Your task to perform on an android device: change notifications settings Image 0: 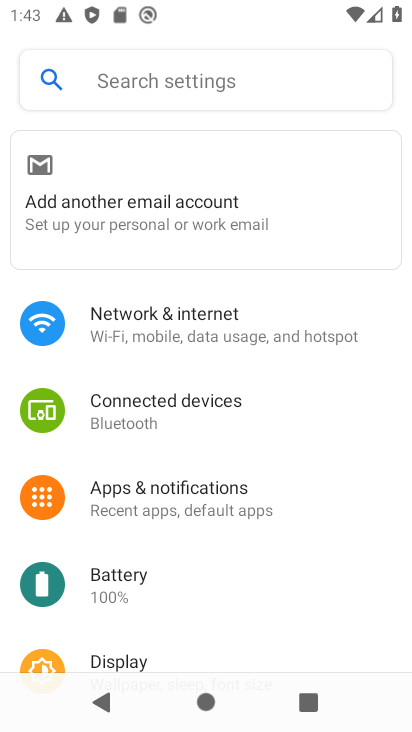
Step 0: click (157, 511)
Your task to perform on an android device: change notifications settings Image 1: 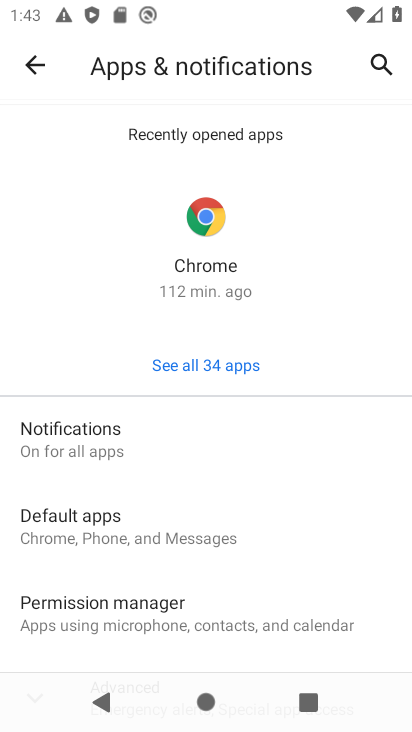
Step 1: click (71, 441)
Your task to perform on an android device: change notifications settings Image 2: 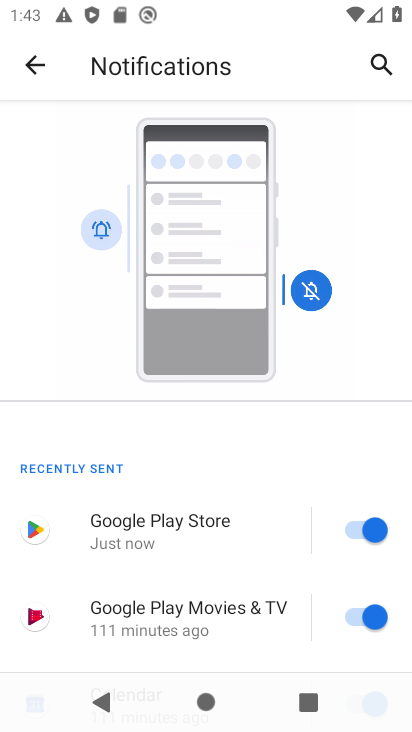
Step 2: drag from (141, 511) to (163, 359)
Your task to perform on an android device: change notifications settings Image 3: 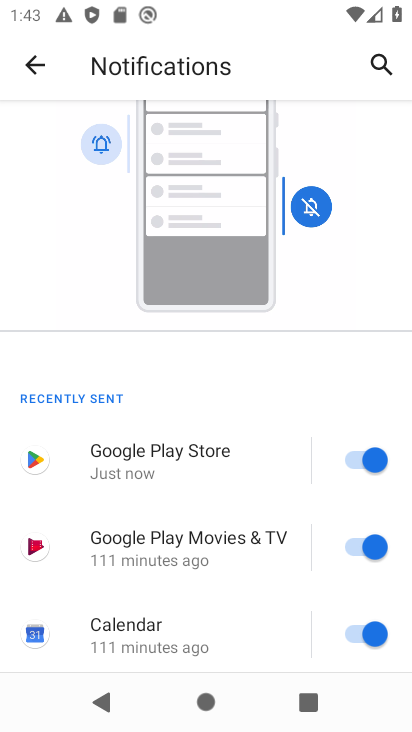
Step 3: drag from (170, 532) to (301, 165)
Your task to perform on an android device: change notifications settings Image 4: 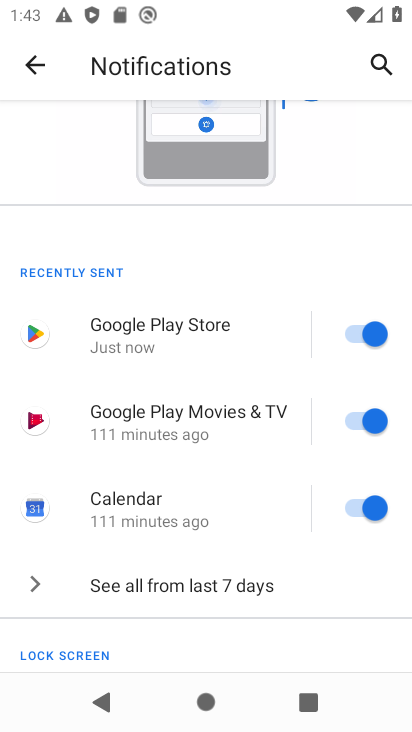
Step 4: drag from (145, 607) to (302, 165)
Your task to perform on an android device: change notifications settings Image 5: 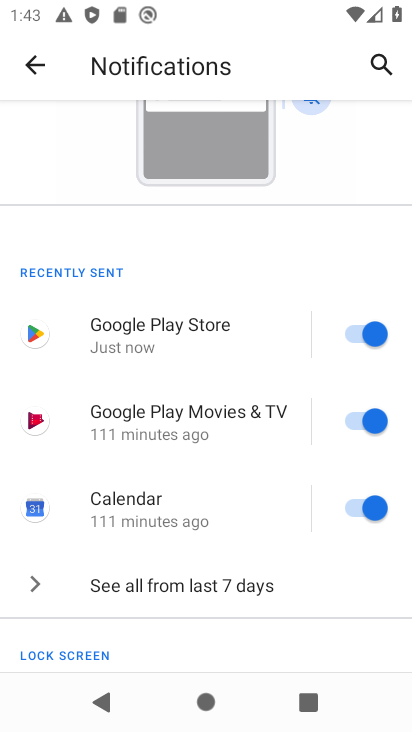
Step 5: drag from (186, 581) to (273, 160)
Your task to perform on an android device: change notifications settings Image 6: 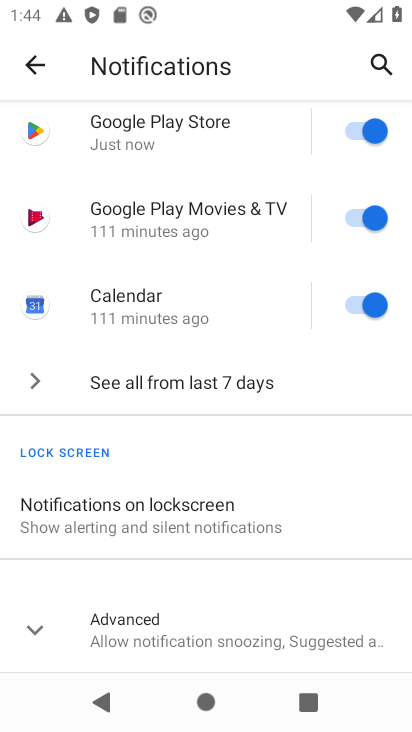
Step 6: click (132, 638)
Your task to perform on an android device: change notifications settings Image 7: 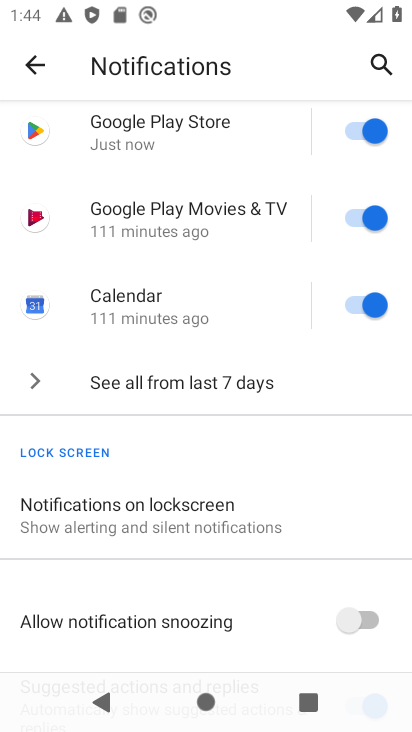
Step 7: click (155, 518)
Your task to perform on an android device: change notifications settings Image 8: 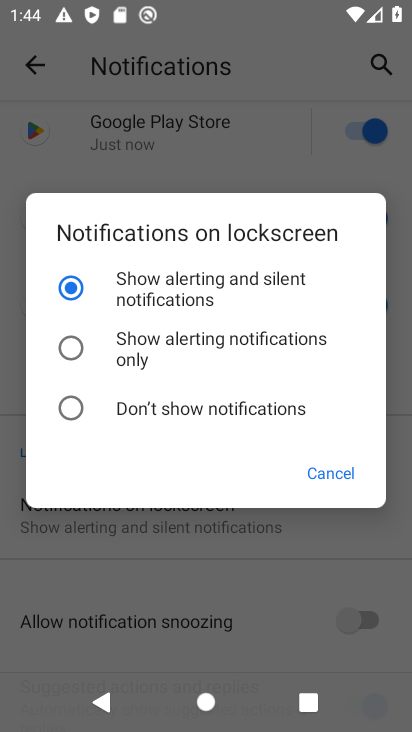
Step 8: click (70, 411)
Your task to perform on an android device: change notifications settings Image 9: 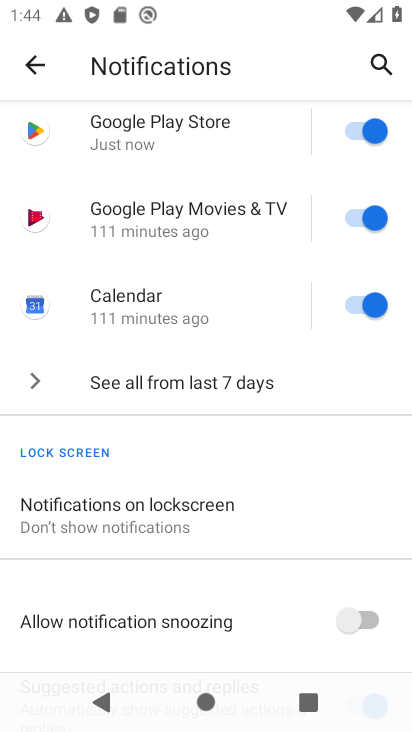
Step 9: task complete